Your task to perform on an android device: open chrome privacy settings Image 0: 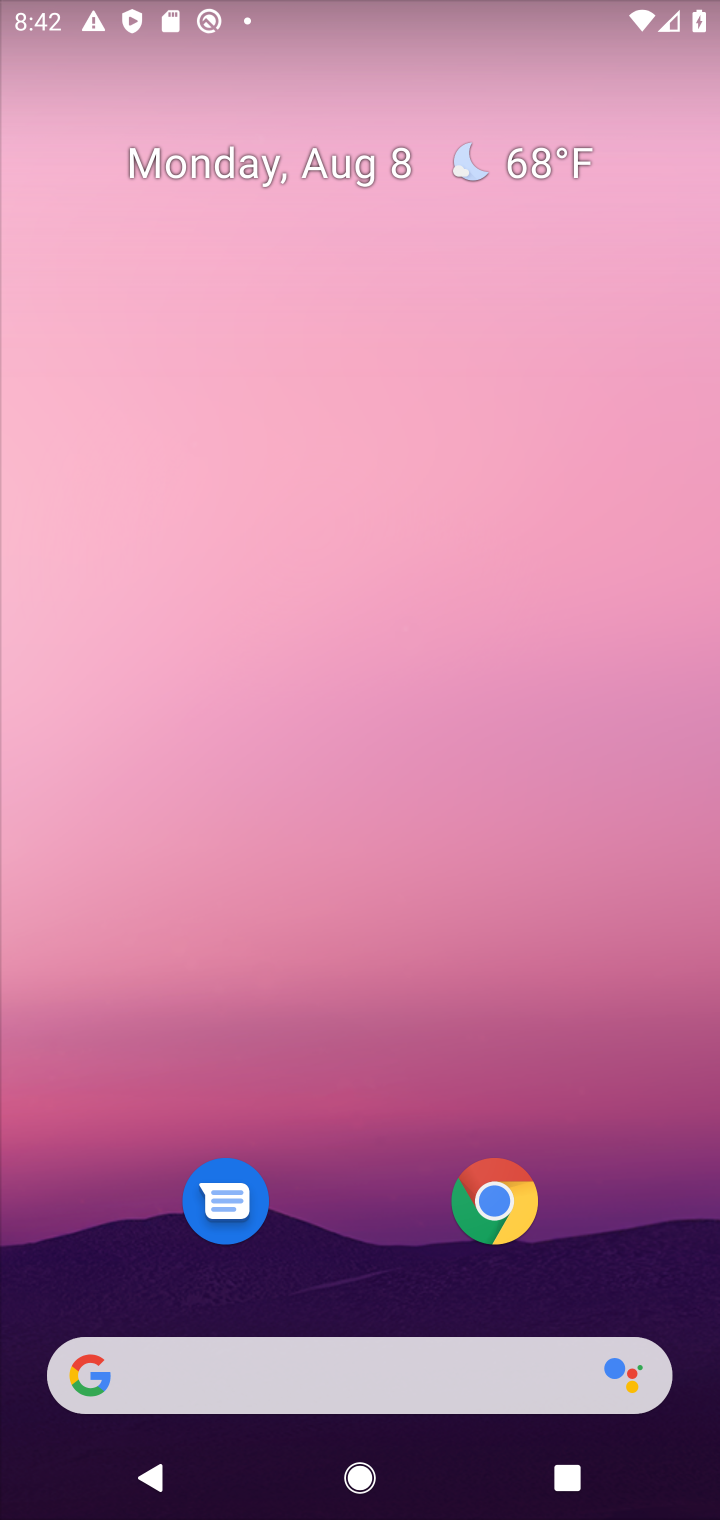
Step 0: press home button
Your task to perform on an android device: open chrome privacy settings Image 1: 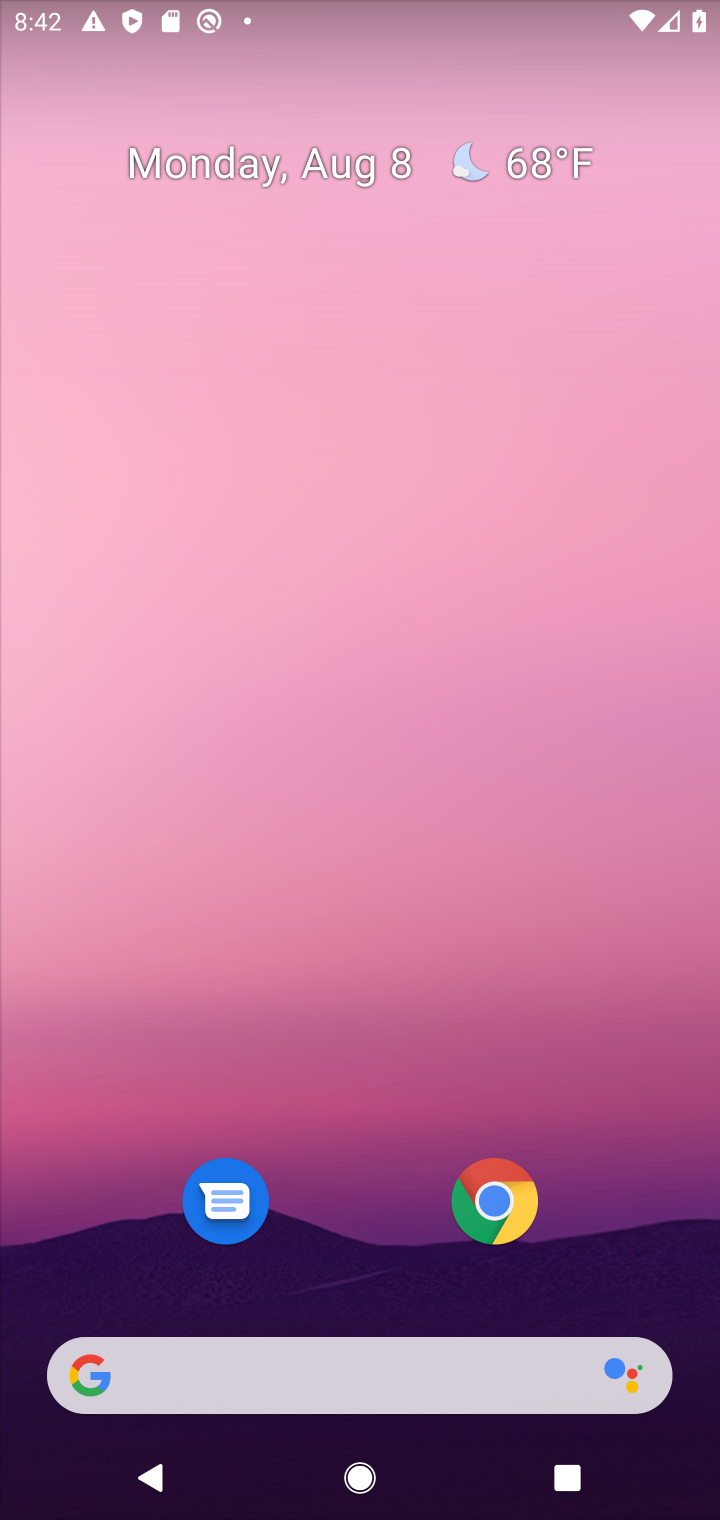
Step 1: drag from (619, 1130) to (605, 242)
Your task to perform on an android device: open chrome privacy settings Image 2: 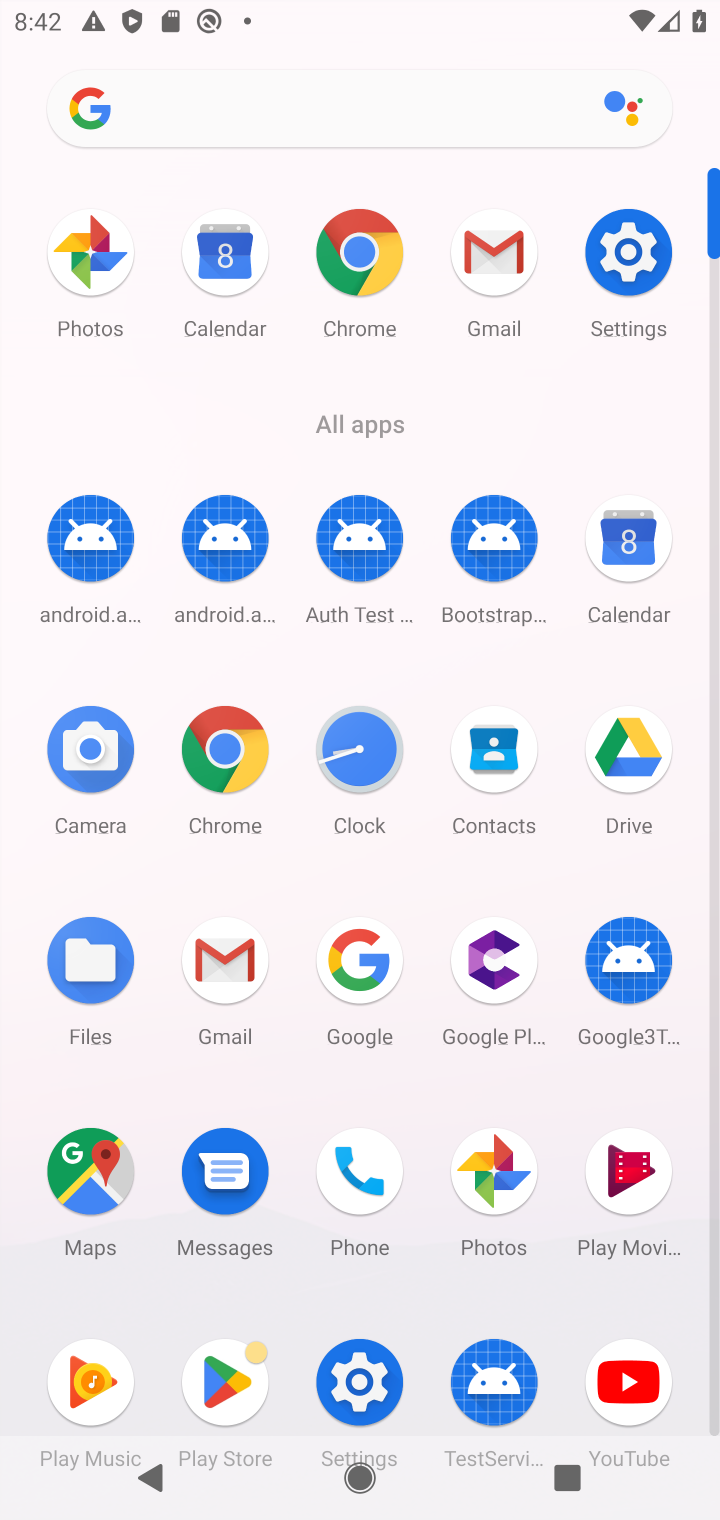
Step 2: click (224, 764)
Your task to perform on an android device: open chrome privacy settings Image 3: 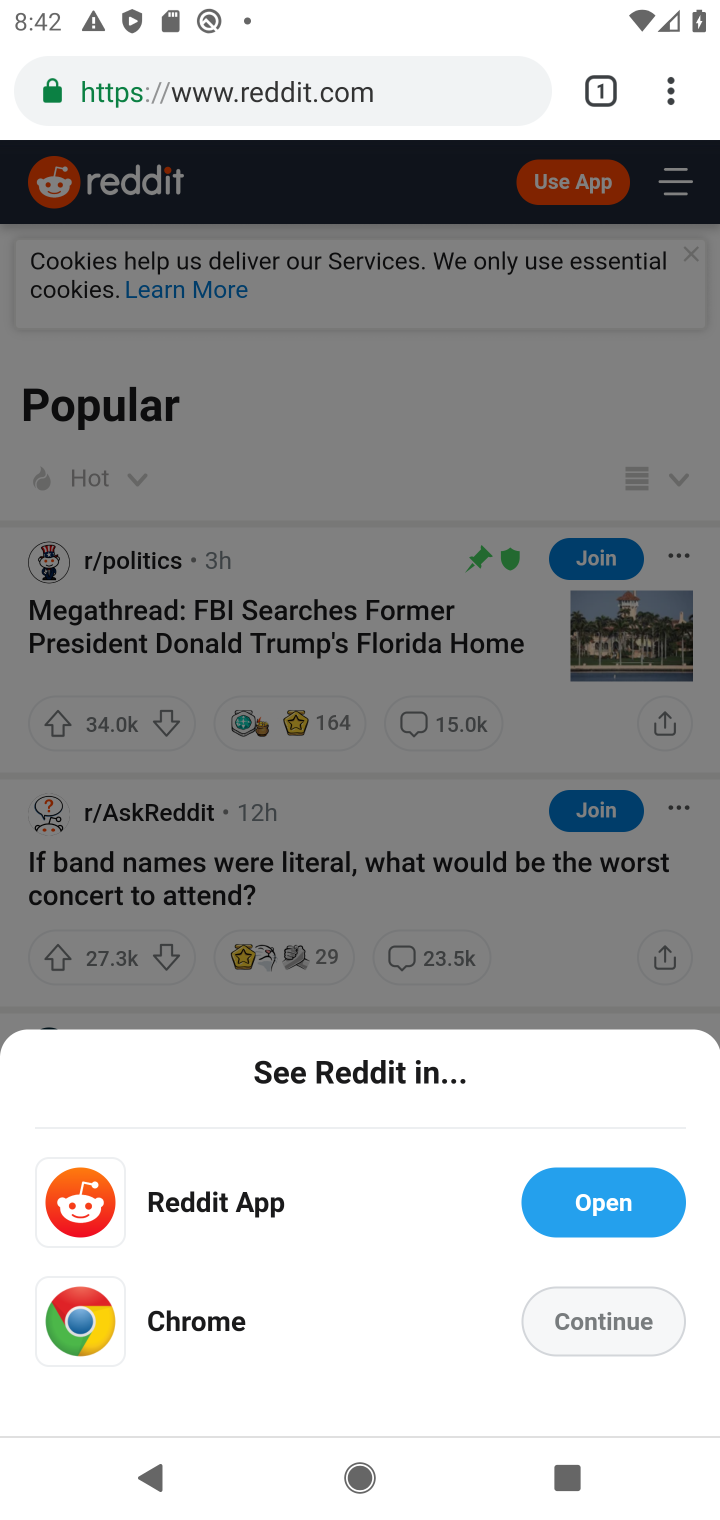
Step 3: click (664, 92)
Your task to perform on an android device: open chrome privacy settings Image 4: 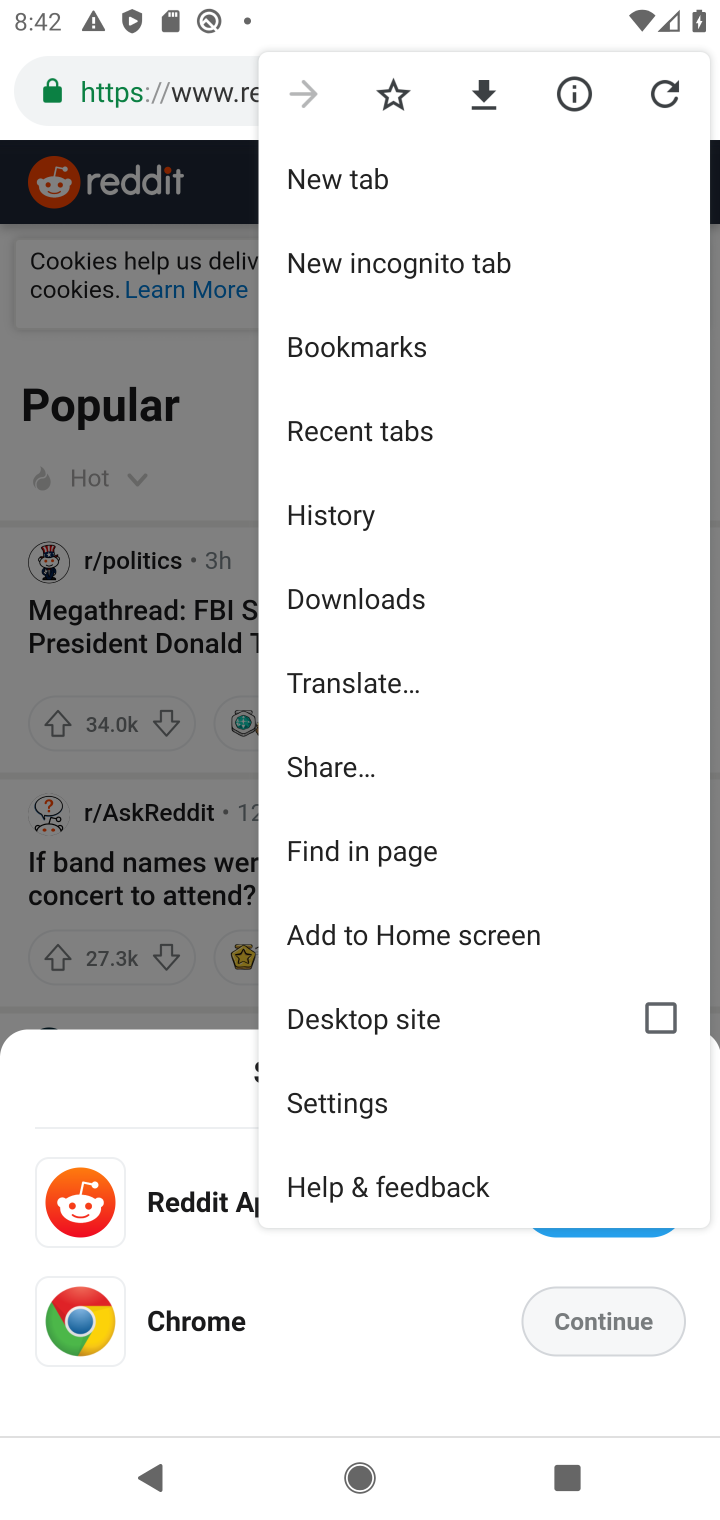
Step 4: drag from (565, 786) to (586, 515)
Your task to perform on an android device: open chrome privacy settings Image 5: 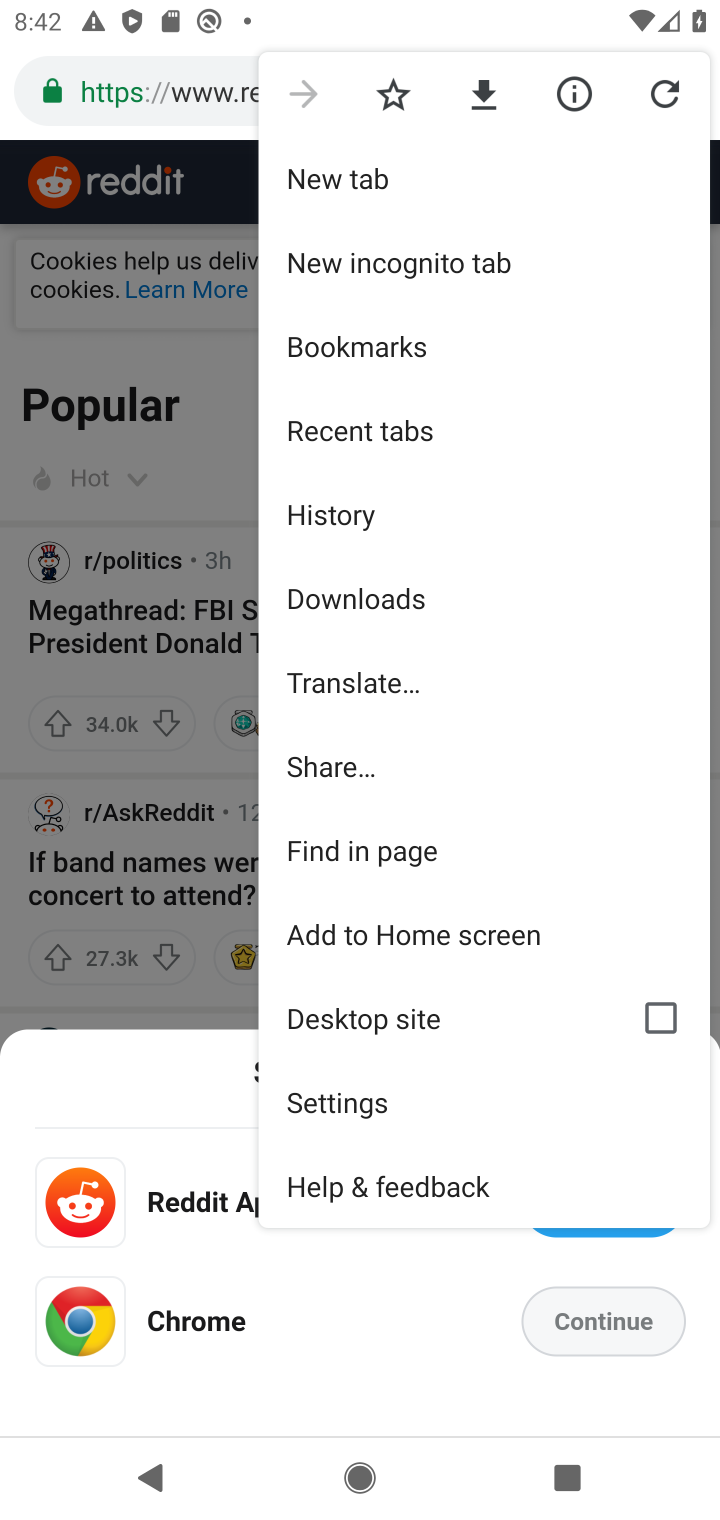
Step 5: click (359, 1101)
Your task to perform on an android device: open chrome privacy settings Image 6: 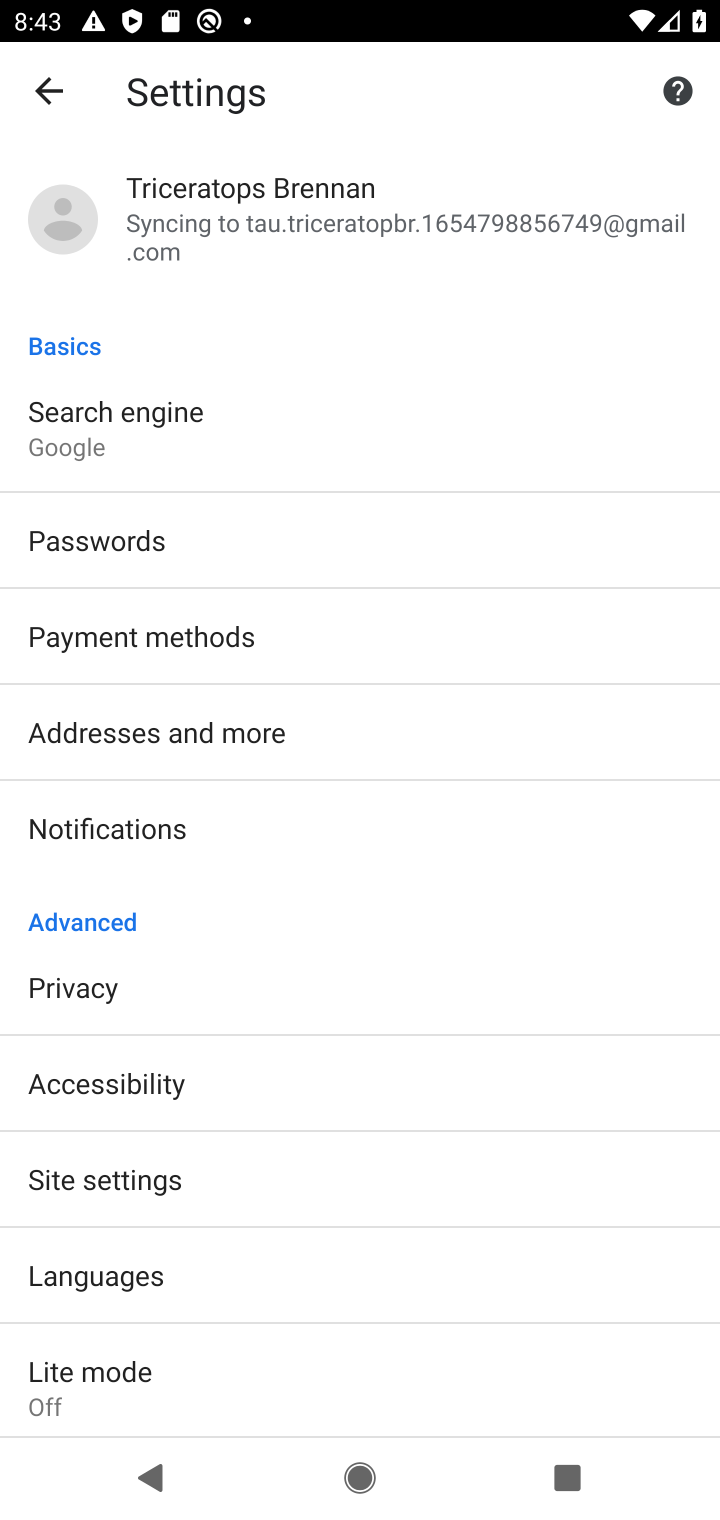
Step 6: drag from (503, 886) to (520, 590)
Your task to perform on an android device: open chrome privacy settings Image 7: 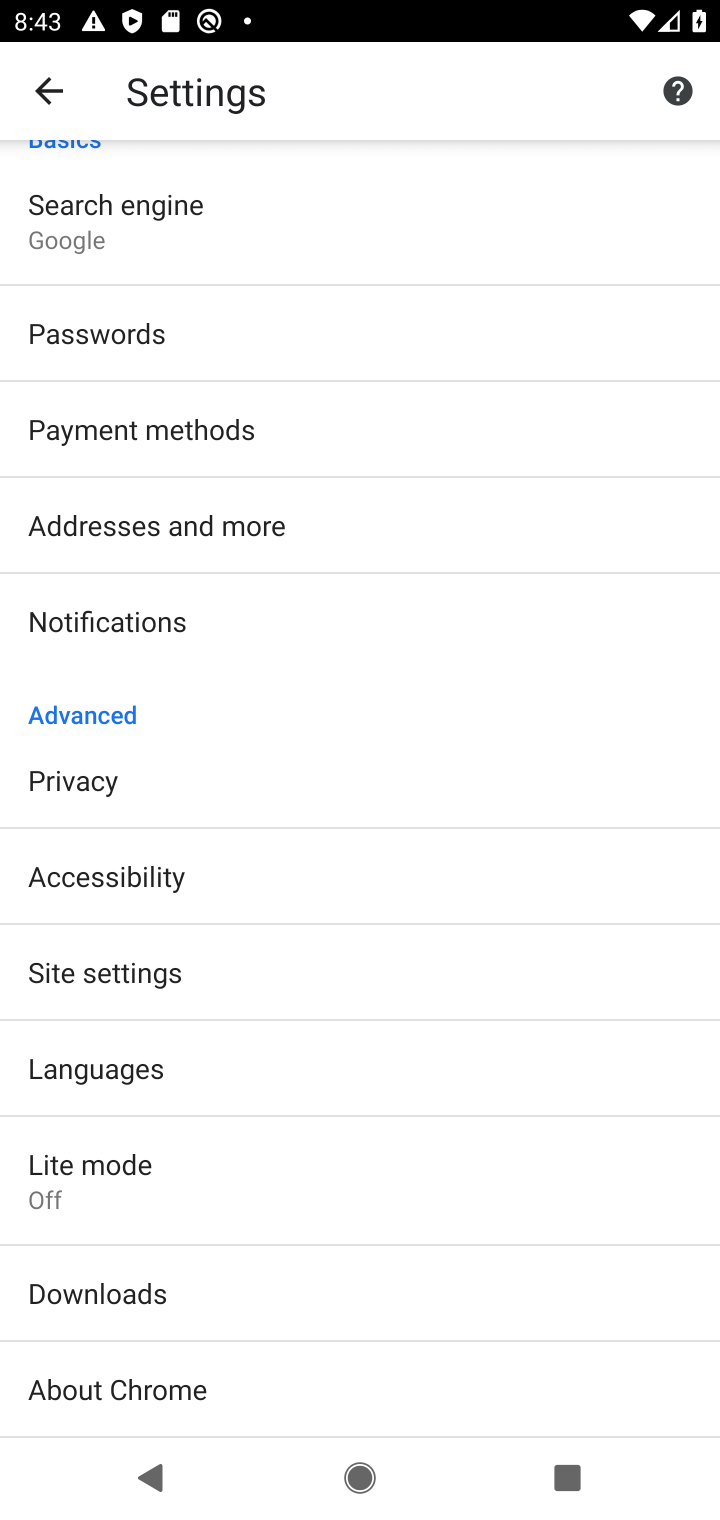
Step 7: drag from (477, 917) to (507, 595)
Your task to perform on an android device: open chrome privacy settings Image 8: 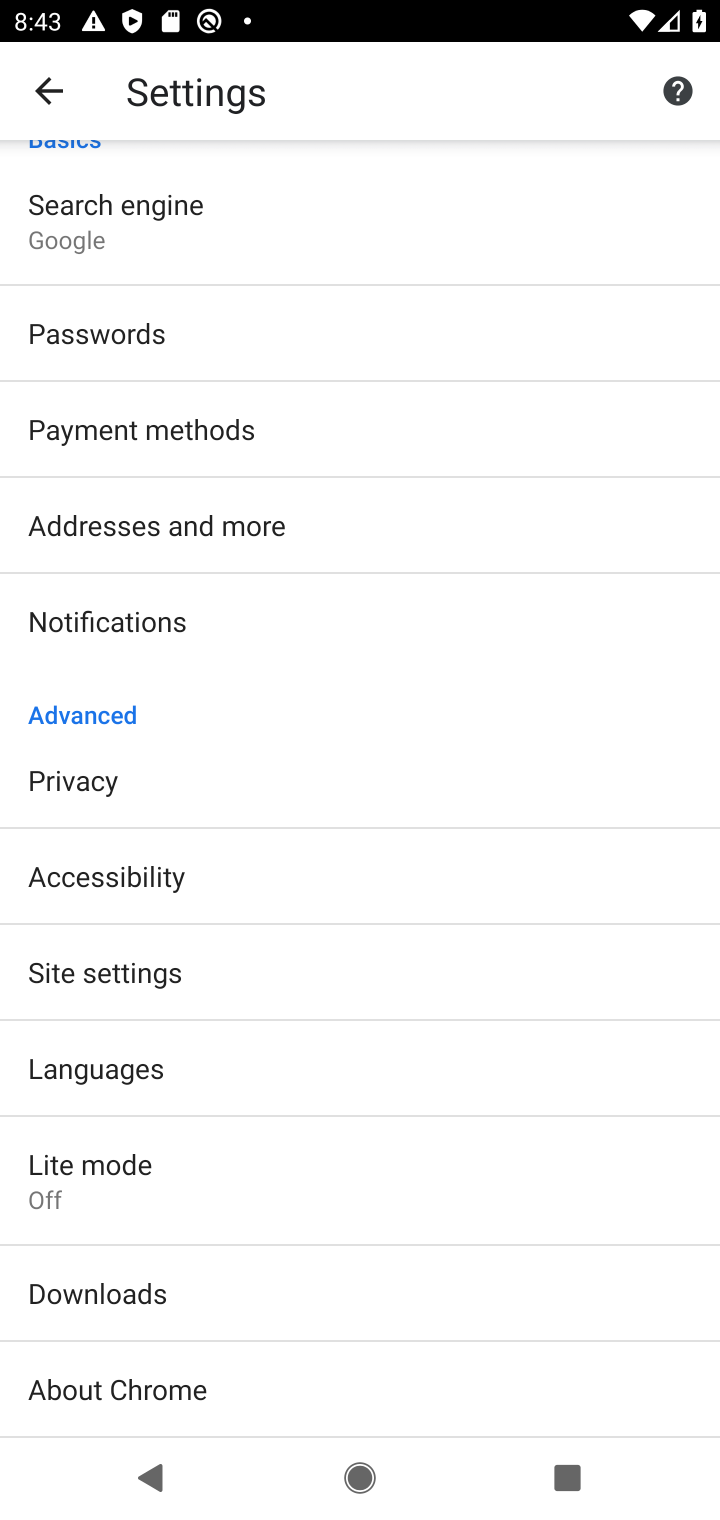
Step 8: drag from (428, 440) to (447, 750)
Your task to perform on an android device: open chrome privacy settings Image 9: 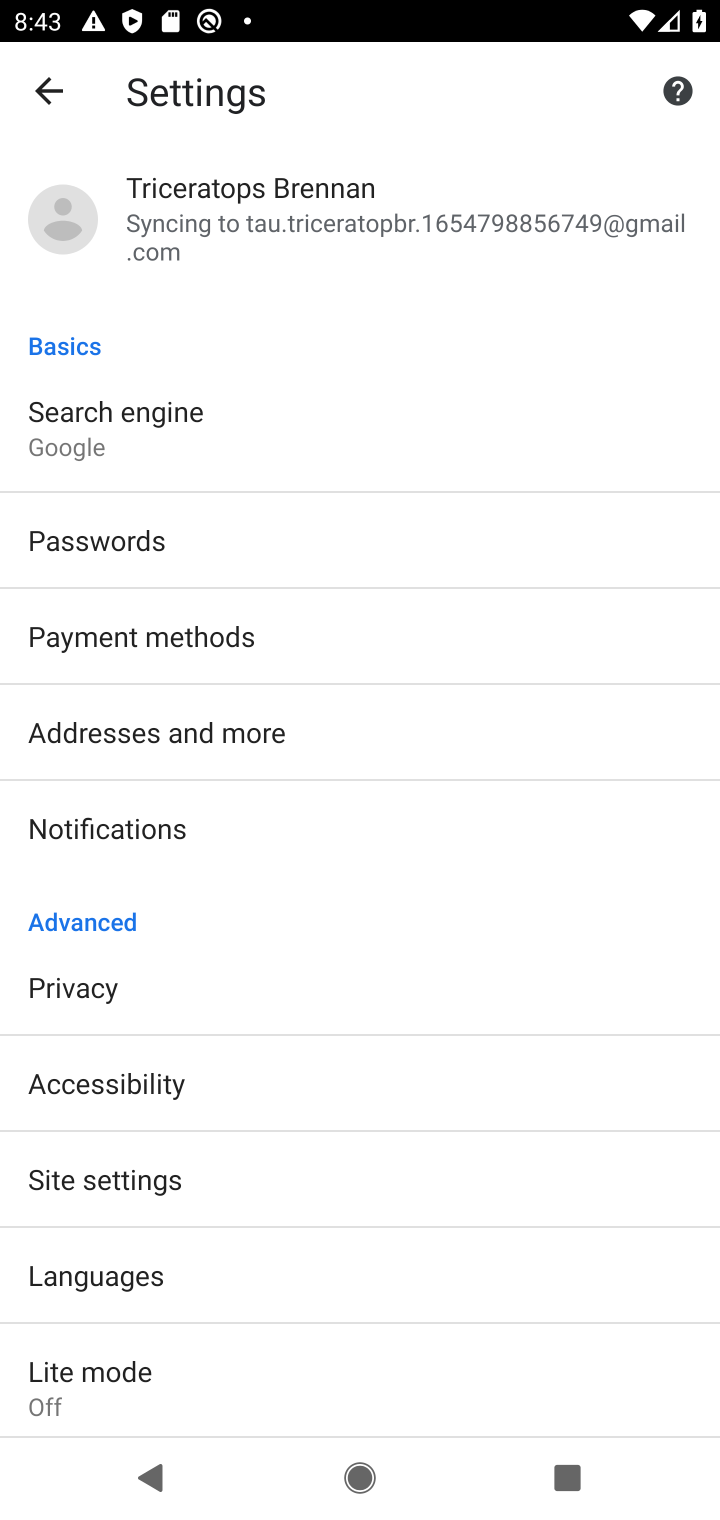
Step 9: drag from (437, 545) to (468, 864)
Your task to perform on an android device: open chrome privacy settings Image 10: 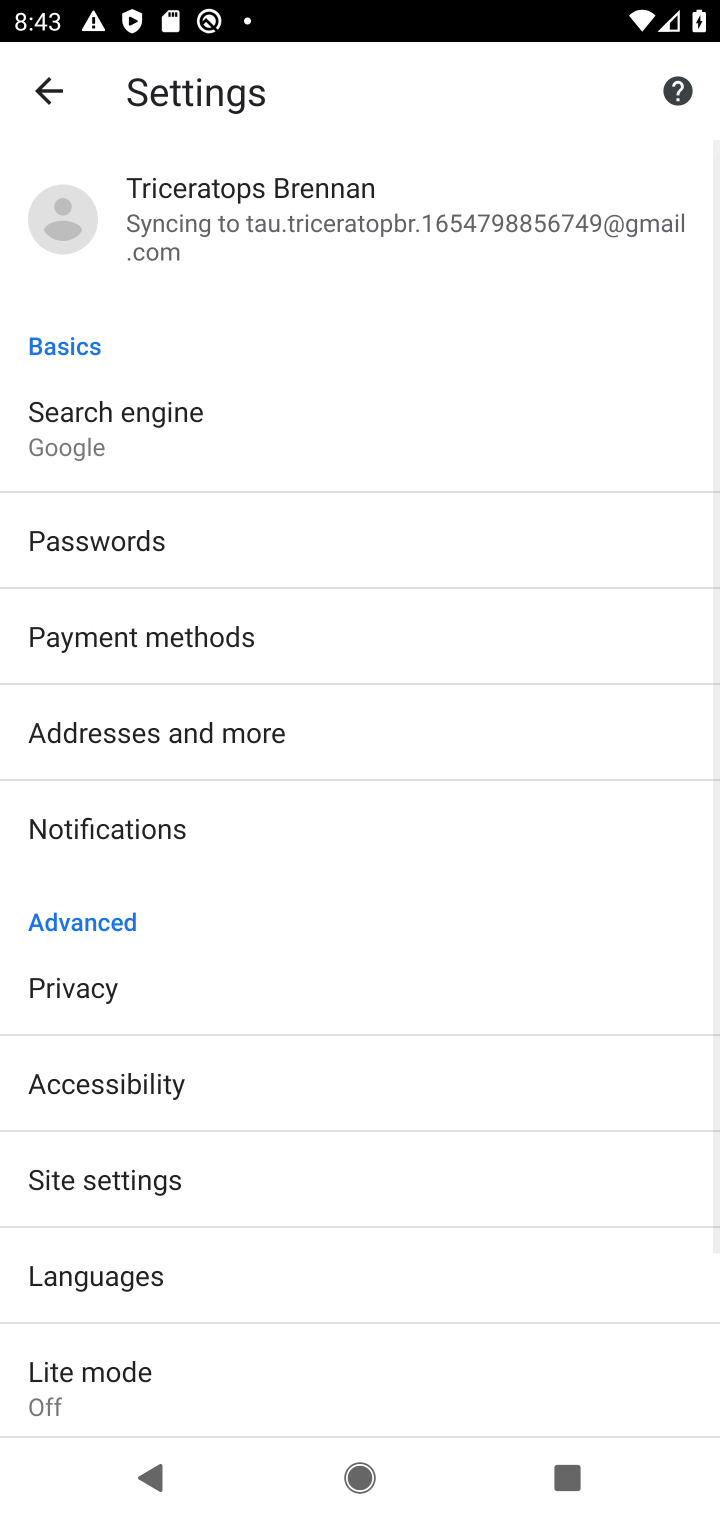
Step 10: drag from (484, 915) to (501, 714)
Your task to perform on an android device: open chrome privacy settings Image 11: 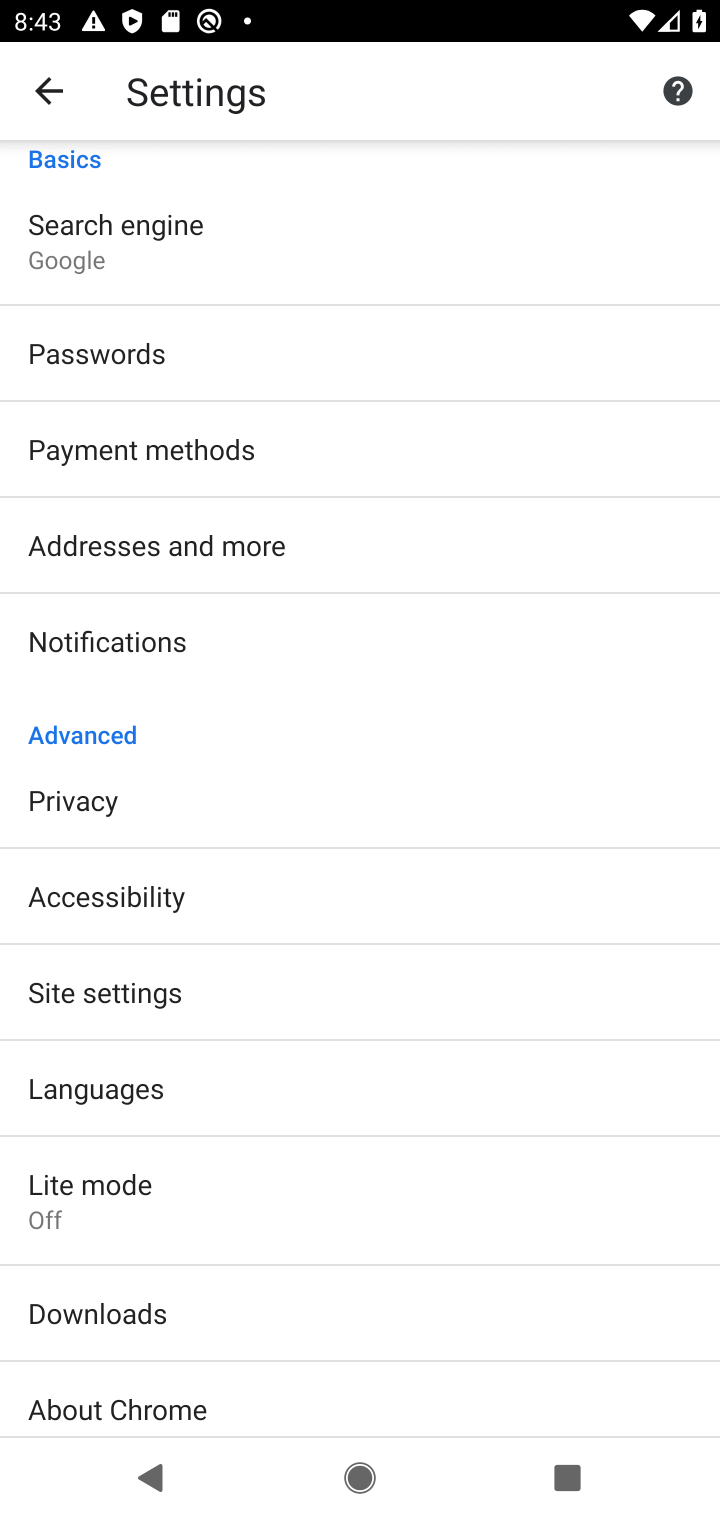
Step 11: click (369, 806)
Your task to perform on an android device: open chrome privacy settings Image 12: 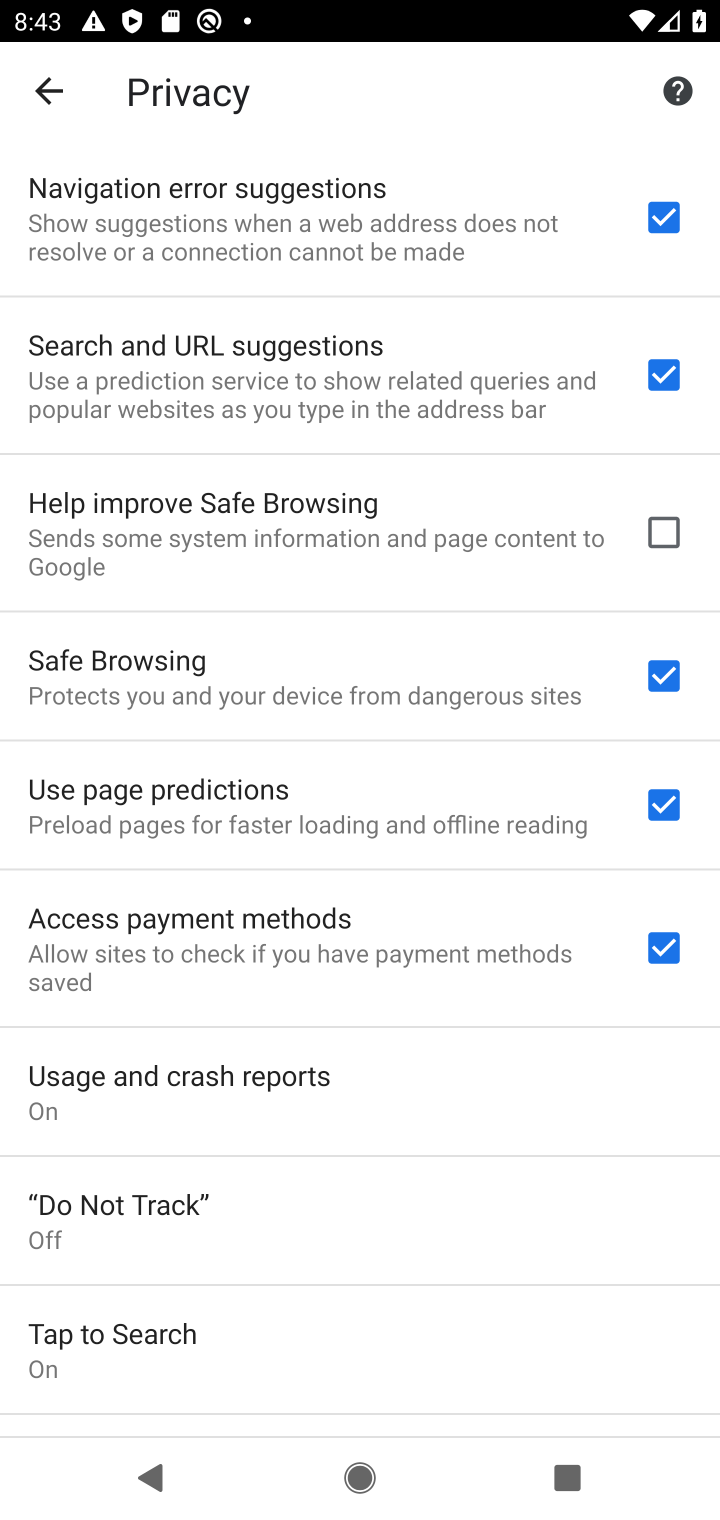
Step 12: task complete